Your task to perform on an android device: toggle location history Image 0: 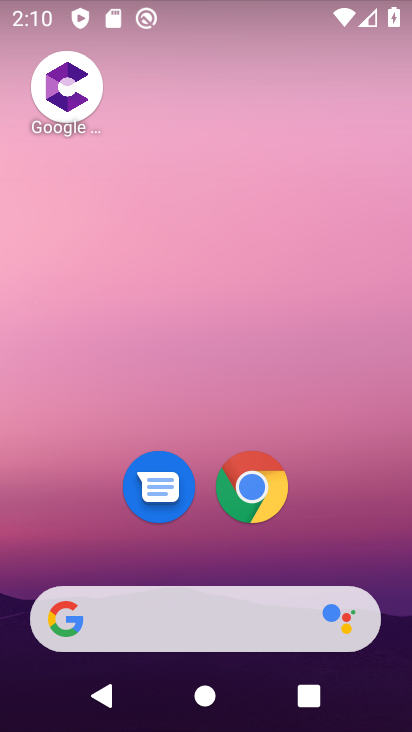
Step 0: drag from (265, 711) to (232, 173)
Your task to perform on an android device: toggle location history Image 1: 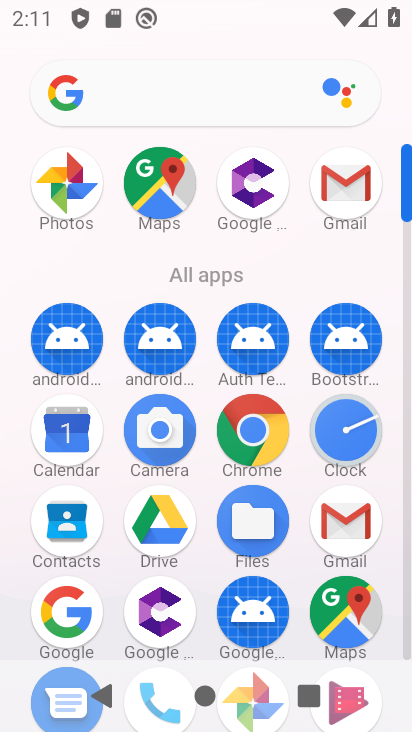
Step 1: click (163, 191)
Your task to perform on an android device: toggle location history Image 2: 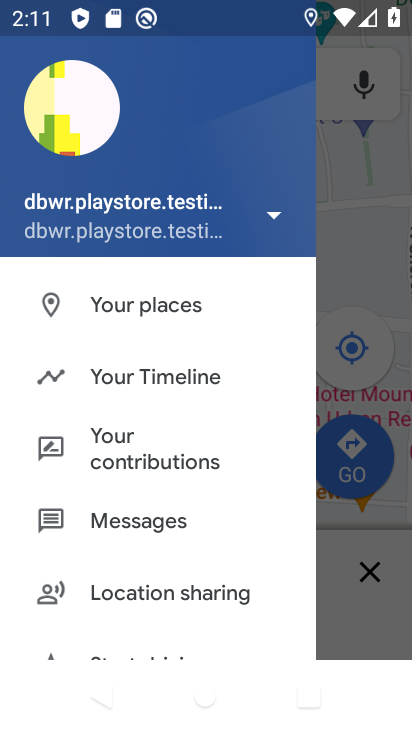
Step 2: click (159, 382)
Your task to perform on an android device: toggle location history Image 3: 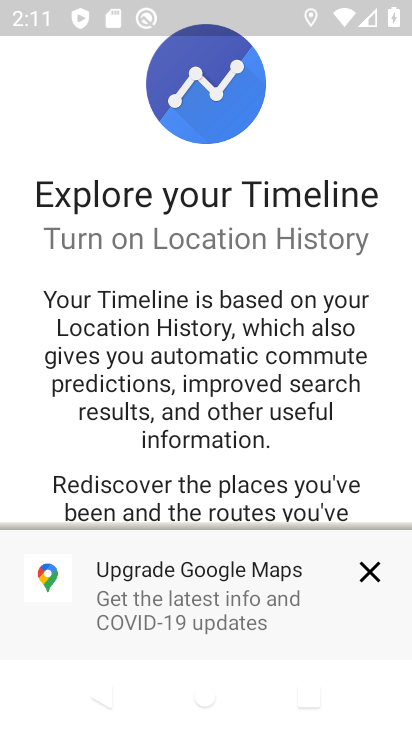
Step 3: click (371, 574)
Your task to perform on an android device: toggle location history Image 4: 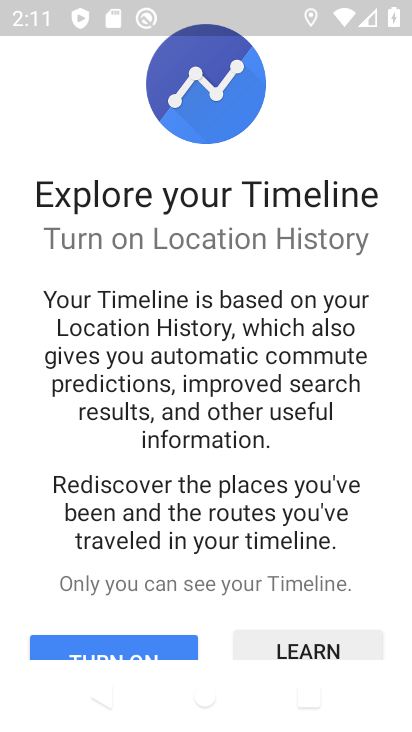
Step 4: drag from (207, 533) to (233, 76)
Your task to perform on an android device: toggle location history Image 5: 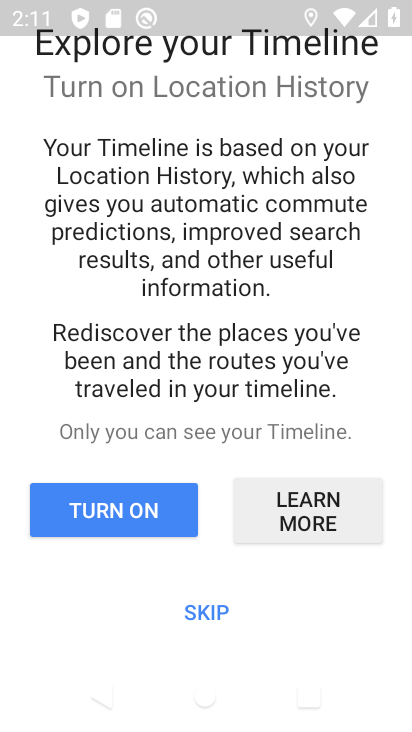
Step 5: click (209, 605)
Your task to perform on an android device: toggle location history Image 6: 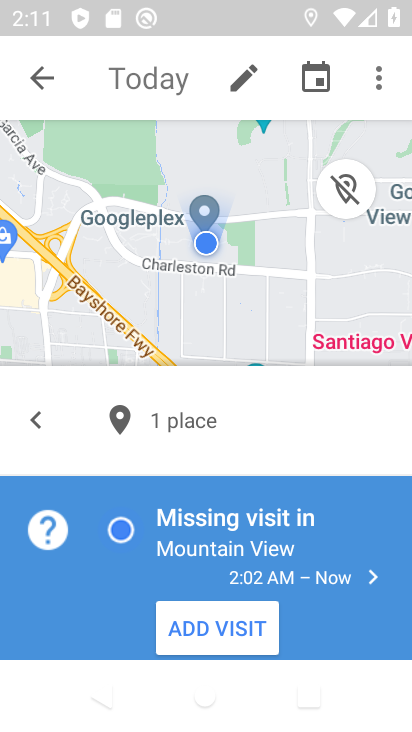
Step 6: click (369, 81)
Your task to perform on an android device: toggle location history Image 7: 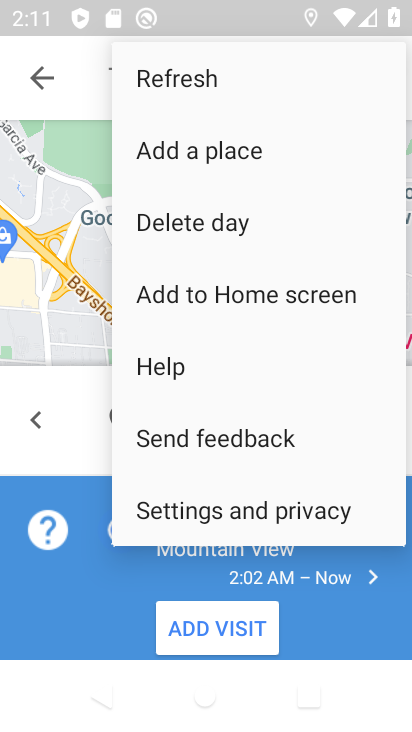
Step 7: click (258, 508)
Your task to perform on an android device: toggle location history Image 8: 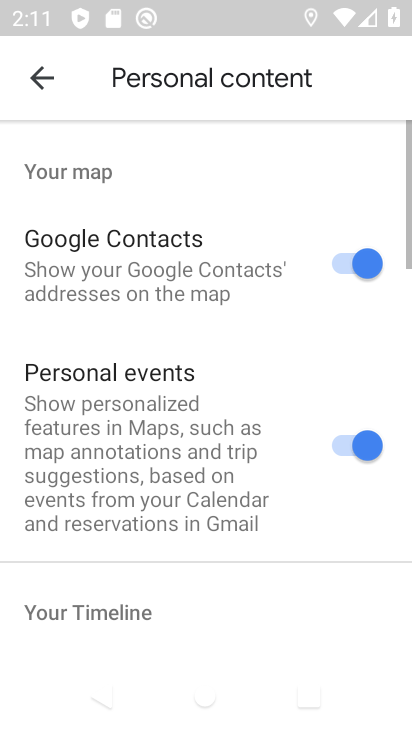
Step 8: drag from (251, 621) to (212, 148)
Your task to perform on an android device: toggle location history Image 9: 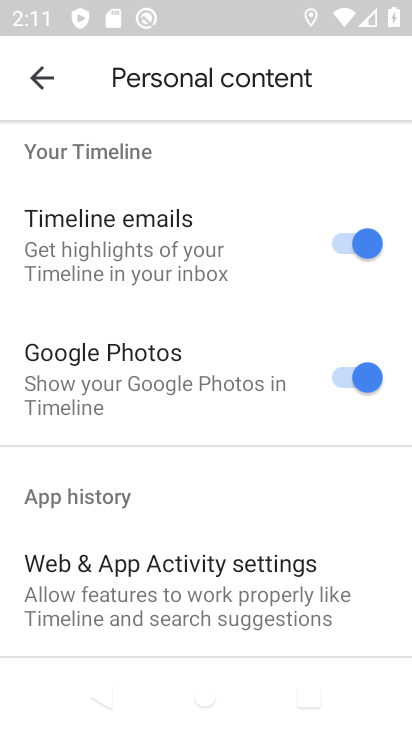
Step 9: drag from (278, 565) to (286, 99)
Your task to perform on an android device: toggle location history Image 10: 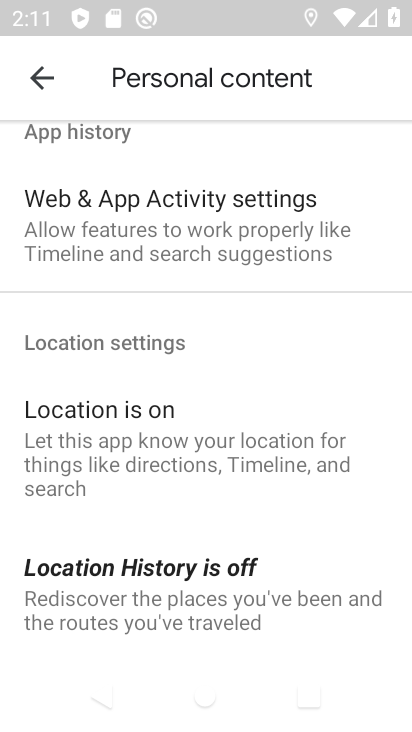
Step 10: drag from (330, 581) to (320, 234)
Your task to perform on an android device: toggle location history Image 11: 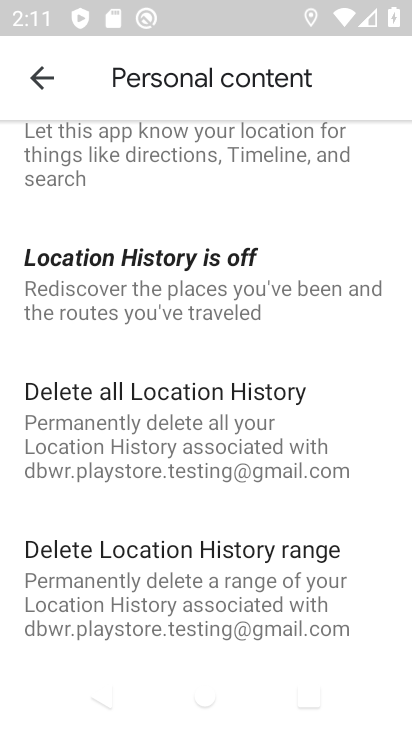
Step 11: click (259, 275)
Your task to perform on an android device: toggle location history Image 12: 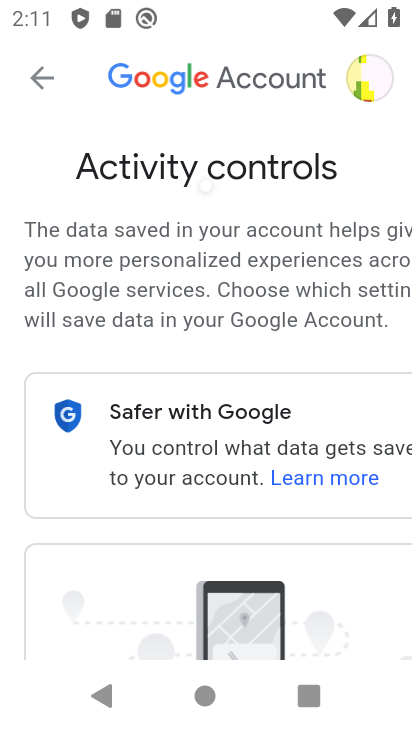
Step 12: drag from (284, 607) to (298, 8)
Your task to perform on an android device: toggle location history Image 13: 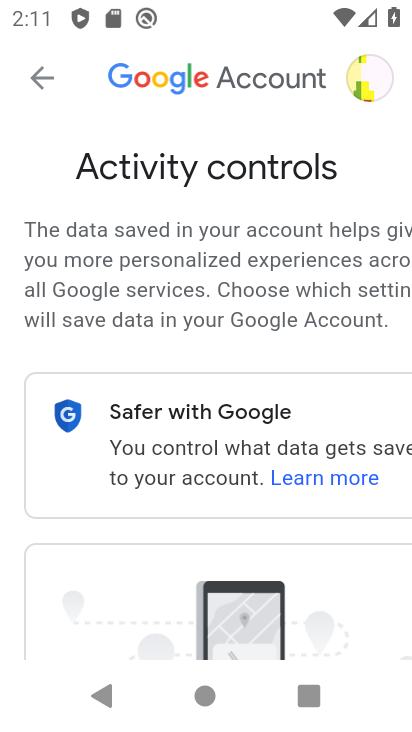
Step 13: drag from (253, 601) to (188, 88)
Your task to perform on an android device: toggle location history Image 14: 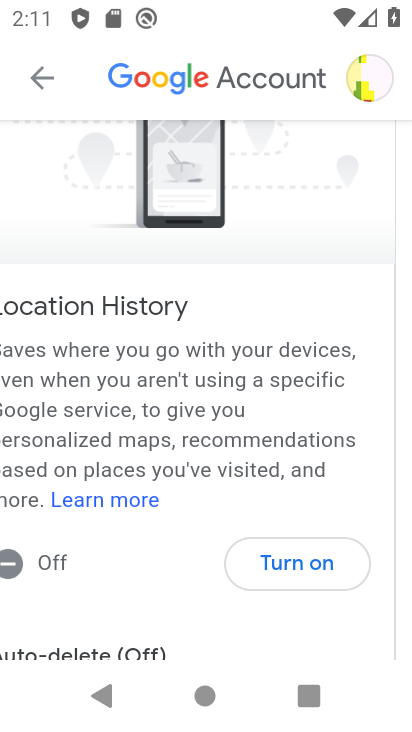
Step 14: click (296, 558)
Your task to perform on an android device: toggle location history Image 15: 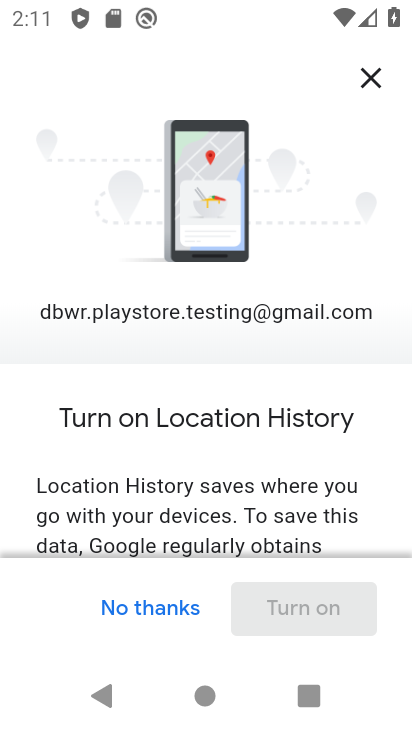
Step 15: drag from (209, 437) to (225, 27)
Your task to perform on an android device: toggle location history Image 16: 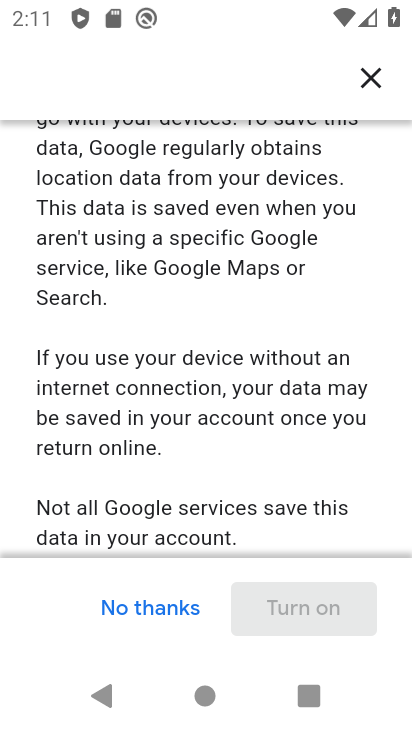
Step 16: drag from (243, 492) to (190, 141)
Your task to perform on an android device: toggle location history Image 17: 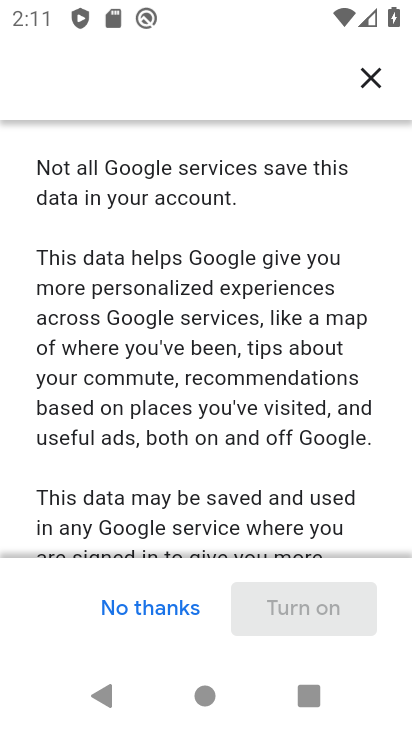
Step 17: drag from (302, 527) to (242, 86)
Your task to perform on an android device: toggle location history Image 18: 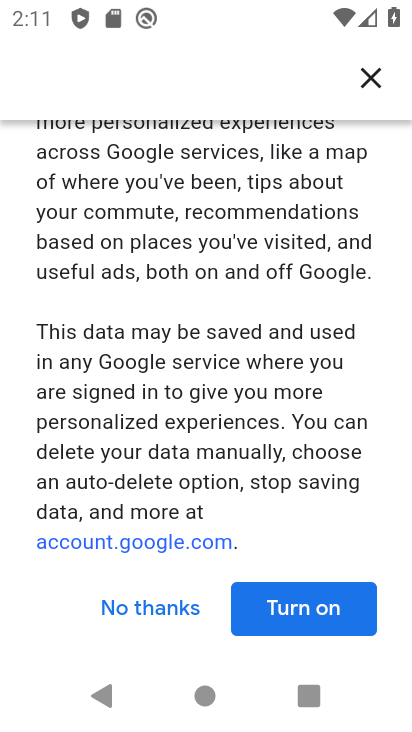
Step 18: click (295, 615)
Your task to perform on an android device: toggle location history Image 19: 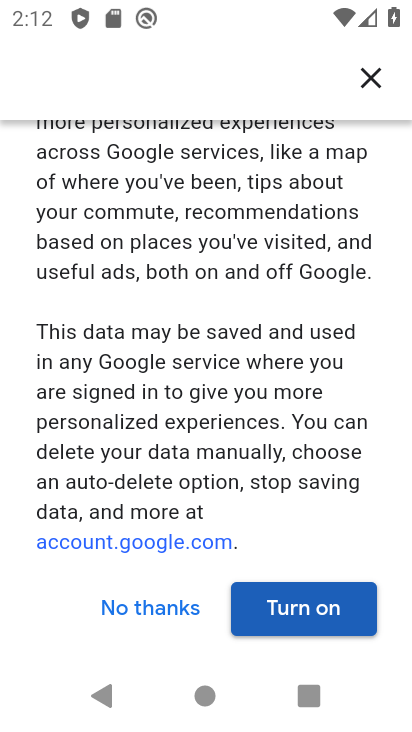
Step 19: click (332, 598)
Your task to perform on an android device: toggle location history Image 20: 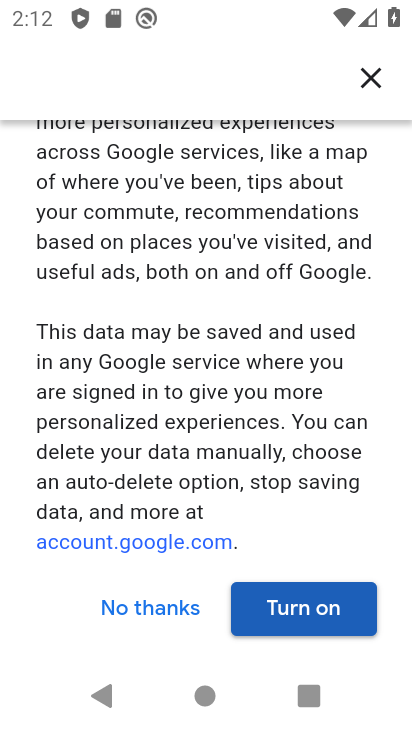
Step 20: drag from (333, 508) to (325, 167)
Your task to perform on an android device: toggle location history Image 21: 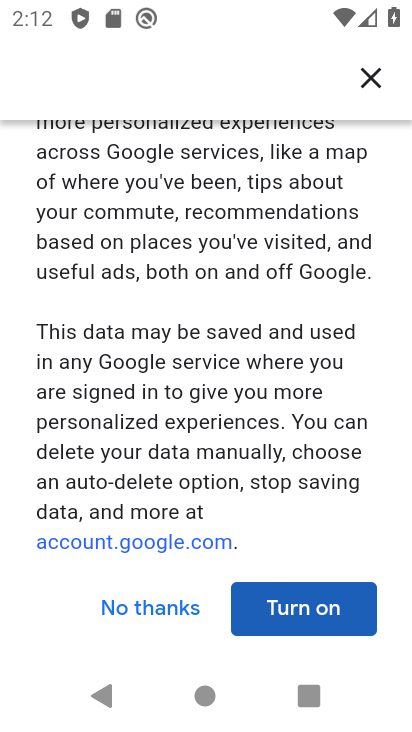
Step 21: click (340, 619)
Your task to perform on an android device: toggle location history Image 22: 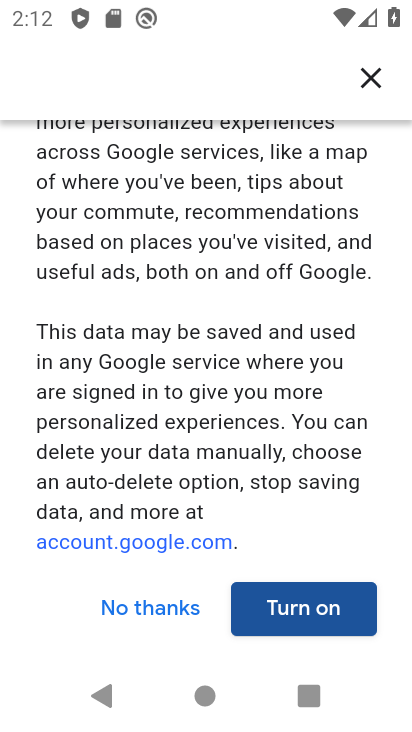
Step 22: drag from (239, 520) to (284, 152)
Your task to perform on an android device: toggle location history Image 23: 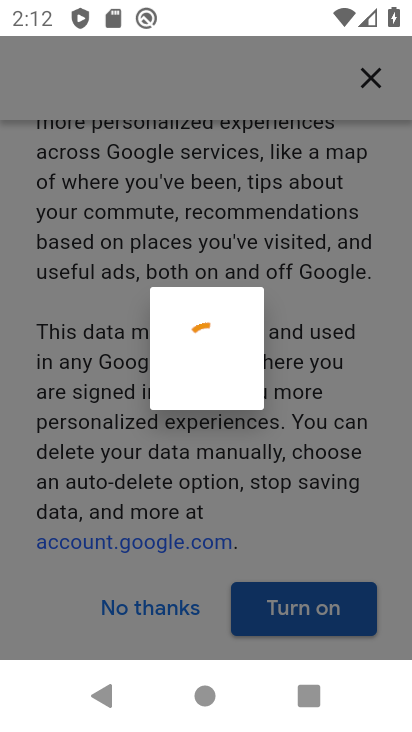
Step 23: click (321, 609)
Your task to perform on an android device: toggle location history Image 24: 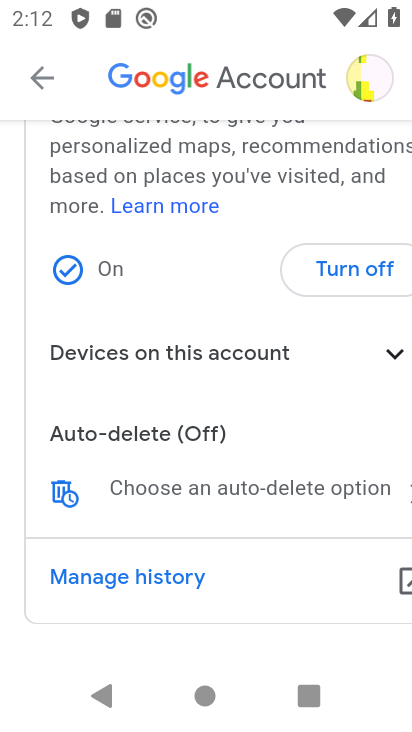
Step 24: task complete